Your task to perform on an android device: Open settings on Google Maps Image 0: 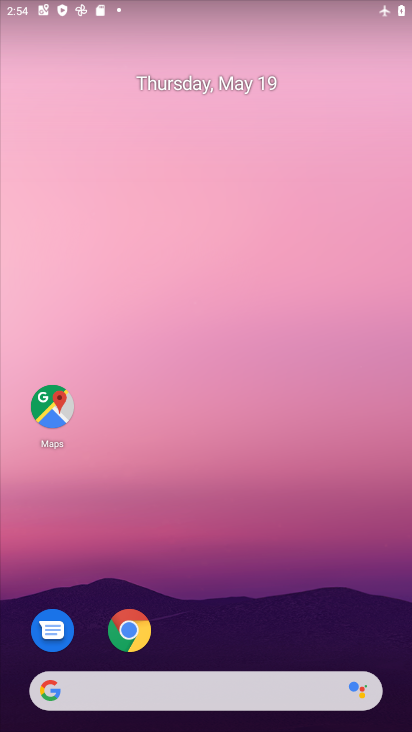
Step 0: click (51, 401)
Your task to perform on an android device: Open settings on Google Maps Image 1: 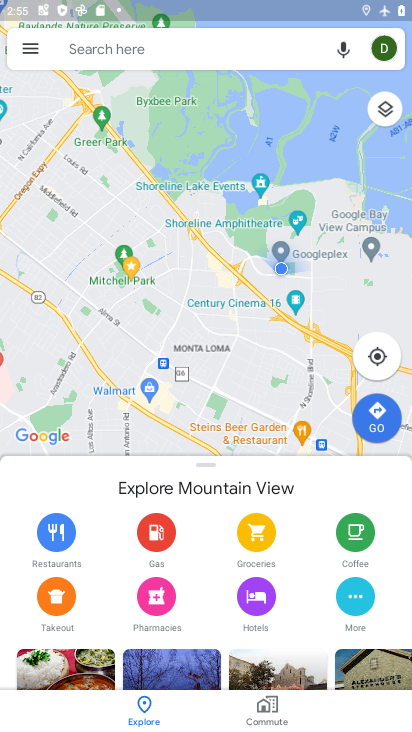
Step 1: click (29, 45)
Your task to perform on an android device: Open settings on Google Maps Image 2: 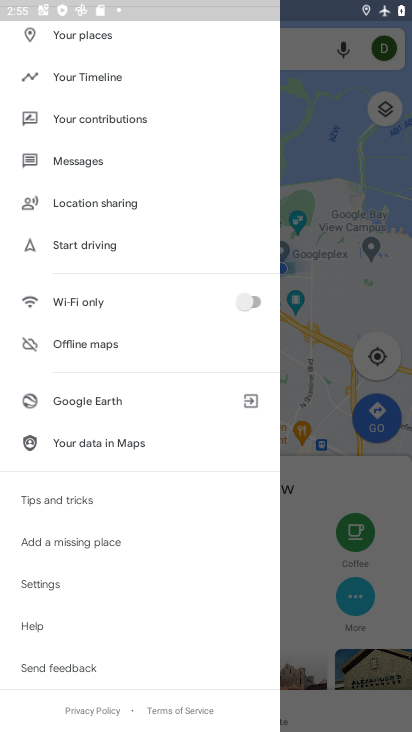
Step 2: click (53, 577)
Your task to perform on an android device: Open settings on Google Maps Image 3: 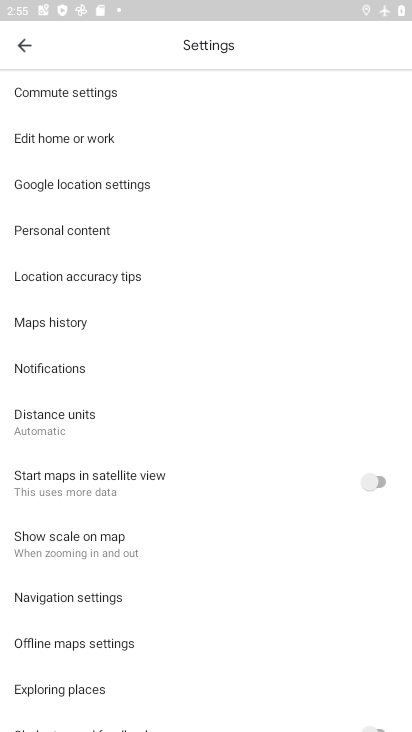
Step 3: task complete